Your task to perform on an android device: Open maps Image 0: 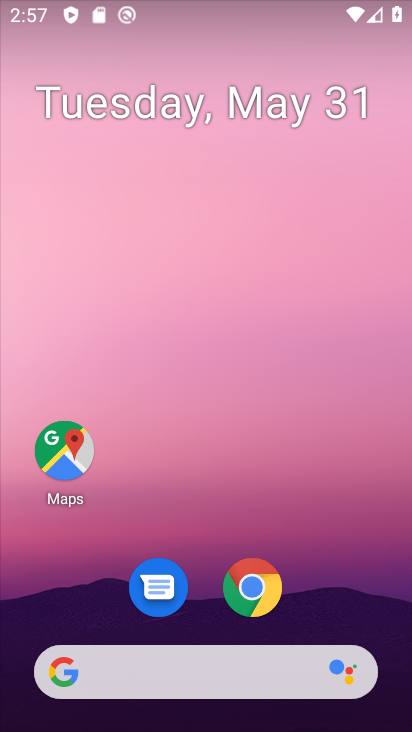
Step 0: click (48, 463)
Your task to perform on an android device: Open maps Image 1: 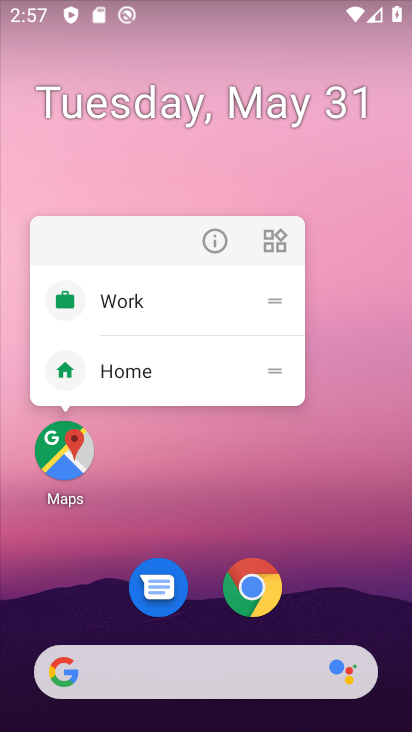
Step 1: click (62, 452)
Your task to perform on an android device: Open maps Image 2: 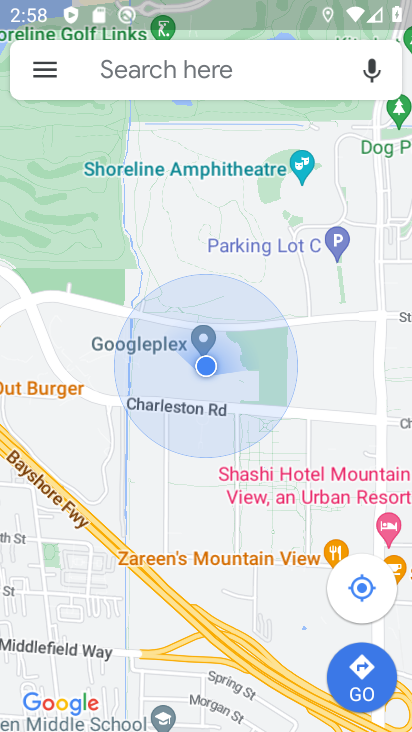
Step 2: task complete